Your task to perform on an android device: What's on my calendar today? Image 0: 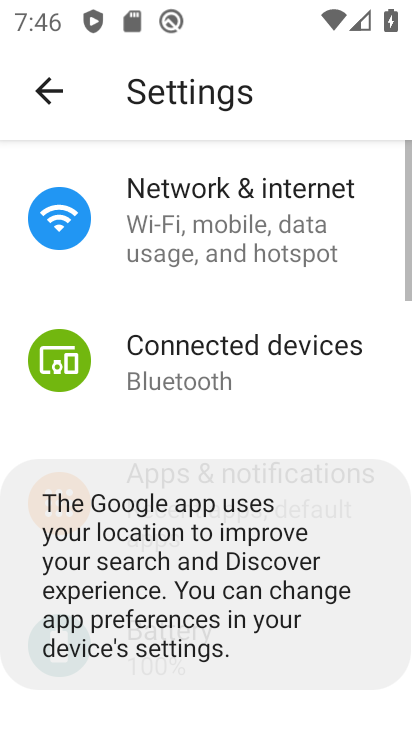
Step 0: press home button
Your task to perform on an android device: What's on my calendar today? Image 1: 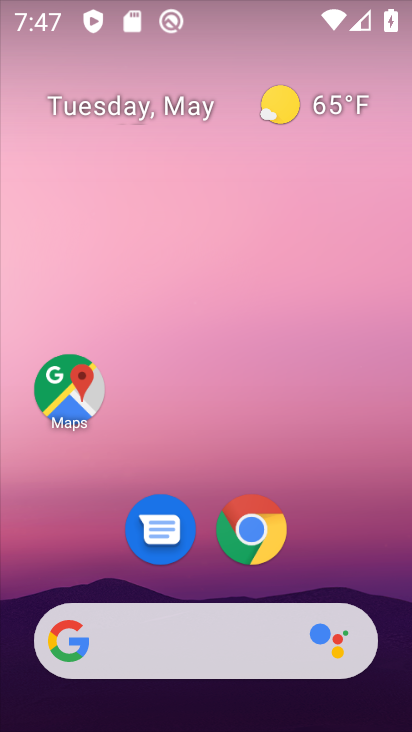
Step 1: drag from (171, 593) to (70, 16)
Your task to perform on an android device: What's on my calendar today? Image 2: 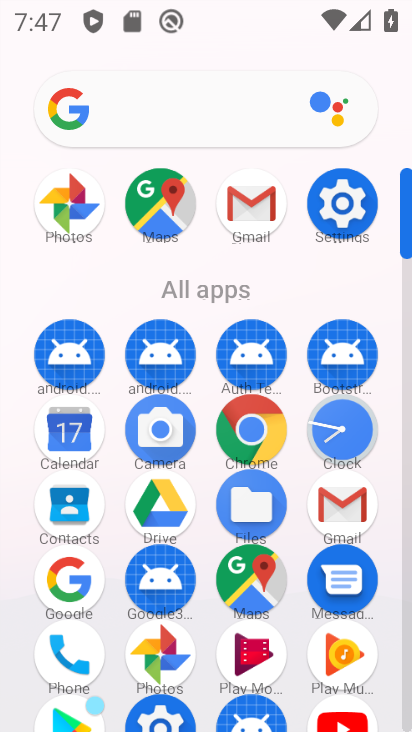
Step 2: click (82, 427)
Your task to perform on an android device: What's on my calendar today? Image 3: 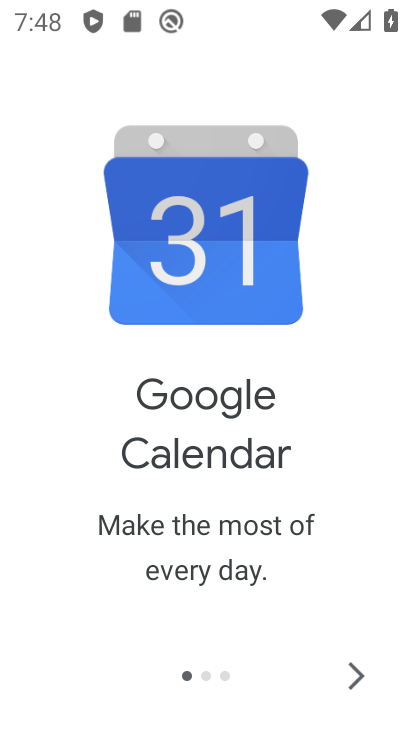
Step 3: click (349, 675)
Your task to perform on an android device: What's on my calendar today? Image 4: 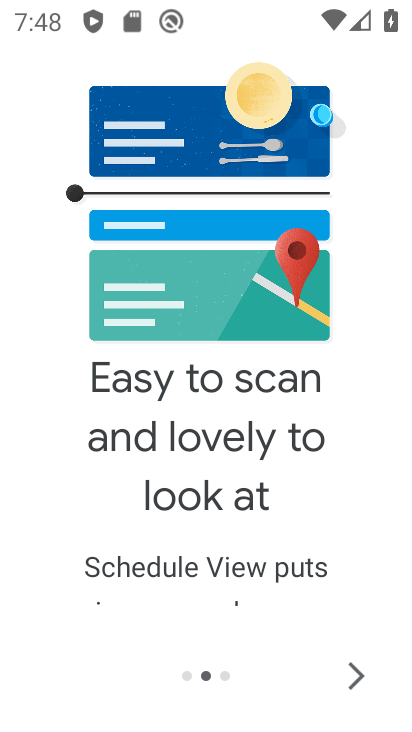
Step 4: click (349, 675)
Your task to perform on an android device: What's on my calendar today? Image 5: 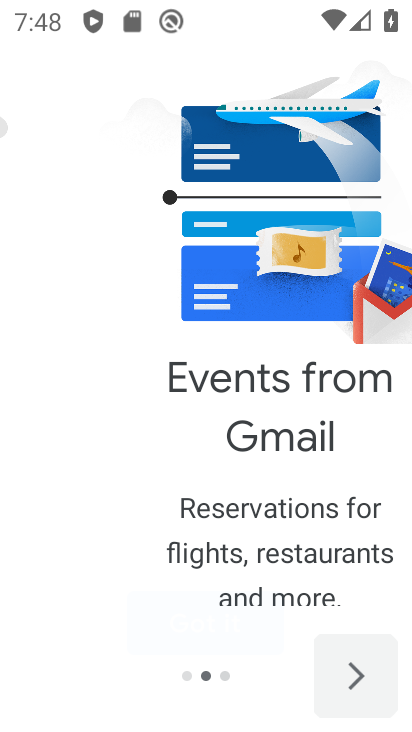
Step 5: click (349, 675)
Your task to perform on an android device: What's on my calendar today? Image 6: 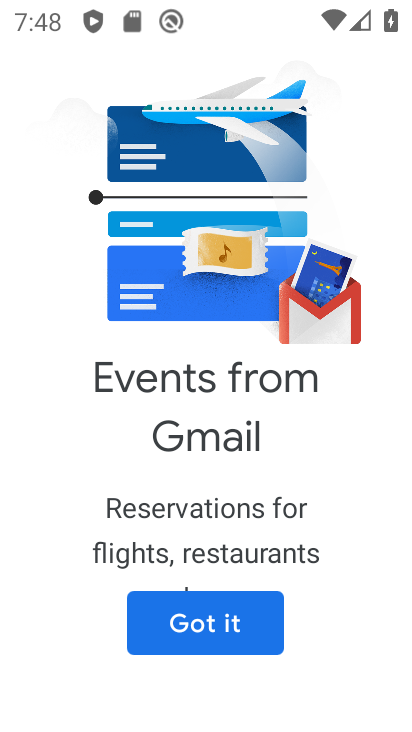
Step 6: click (349, 675)
Your task to perform on an android device: What's on my calendar today? Image 7: 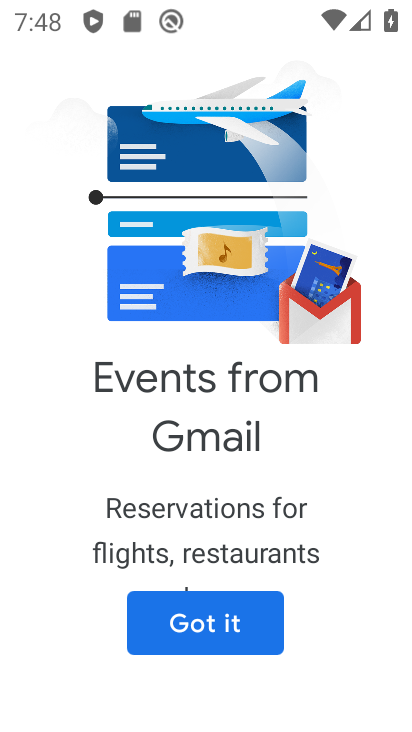
Step 7: click (250, 635)
Your task to perform on an android device: What's on my calendar today? Image 8: 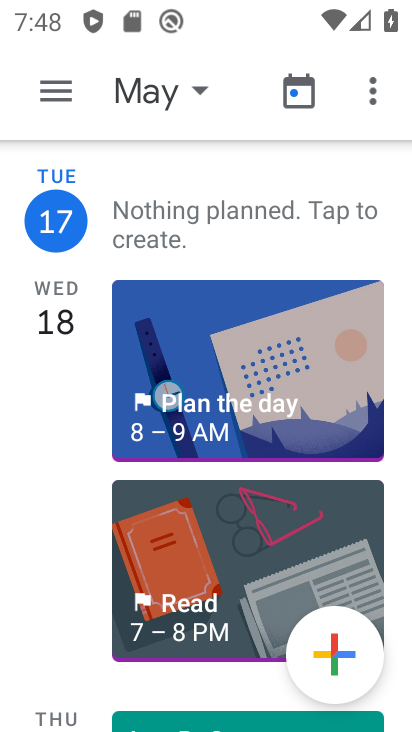
Step 8: click (66, 215)
Your task to perform on an android device: What's on my calendar today? Image 9: 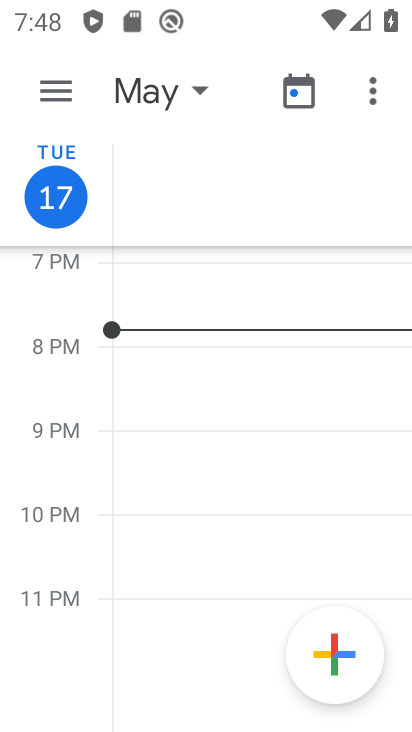
Step 9: task complete